Your task to perform on an android device: toggle priority inbox in the gmail app Image 0: 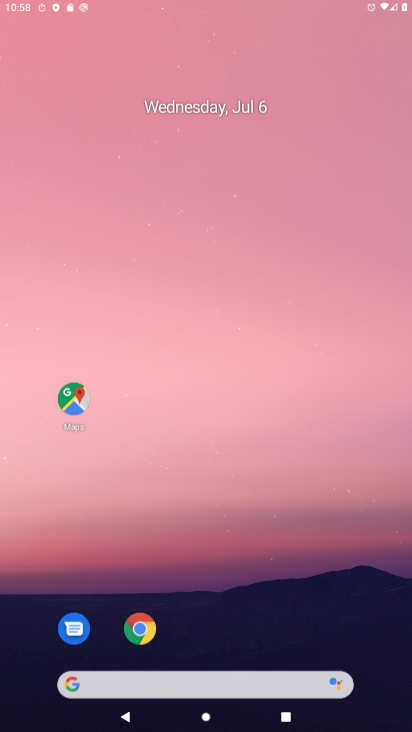
Step 0: click (169, 120)
Your task to perform on an android device: toggle priority inbox in the gmail app Image 1: 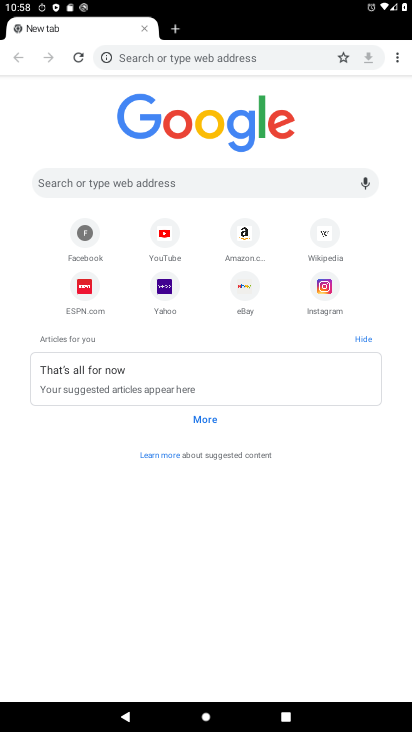
Step 1: press home button
Your task to perform on an android device: toggle priority inbox in the gmail app Image 2: 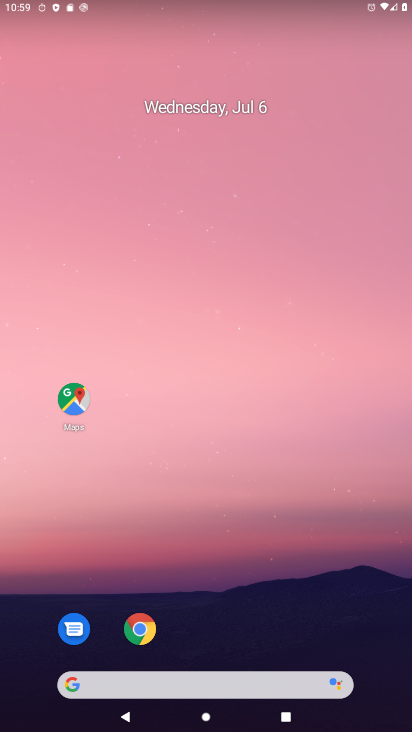
Step 2: drag from (223, 641) to (238, 148)
Your task to perform on an android device: toggle priority inbox in the gmail app Image 3: 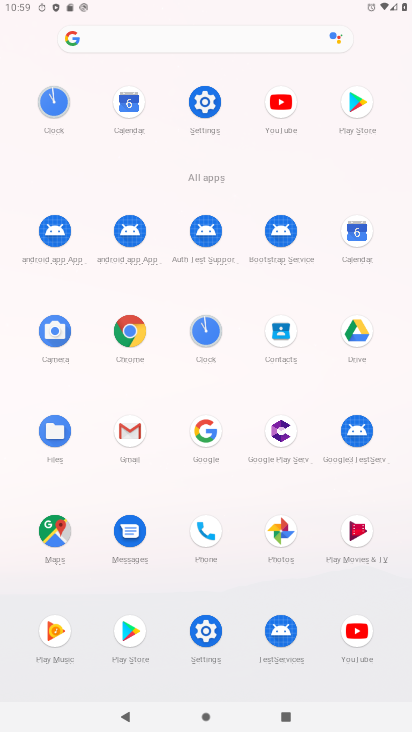
Step 3: click (139, 443)
Your task to perform on an android device: toggle priority inbox in the gmail app Image 4: 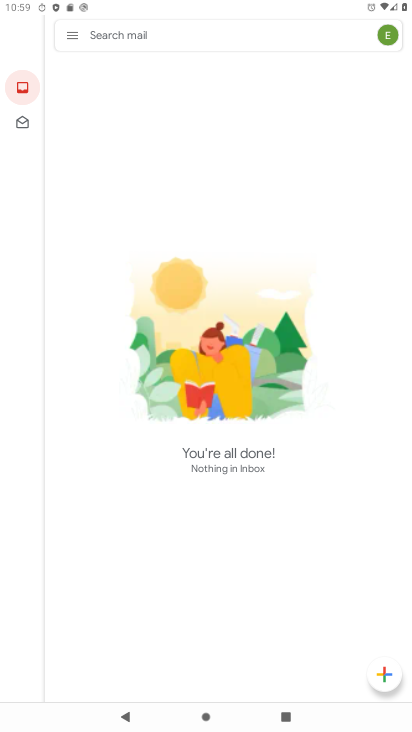
Step 4: click (76, 34)
Your task to perform on an android device: toggle priority inbox in the gmail app Image 5: 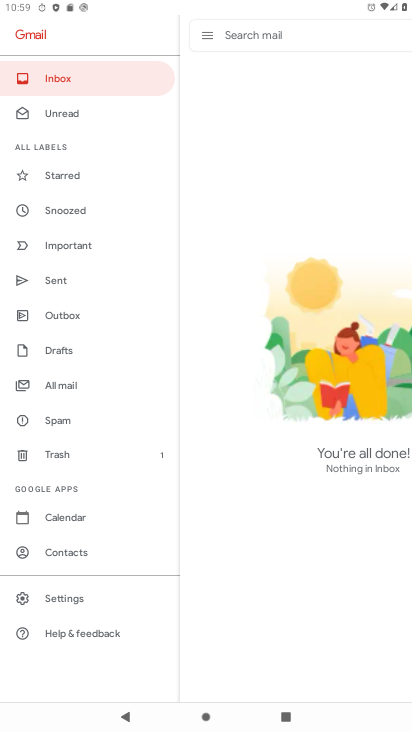
Step 5: click (68, 586)
Your task to perform on an android device: toggle priority inbox in the gmail app Image 6: 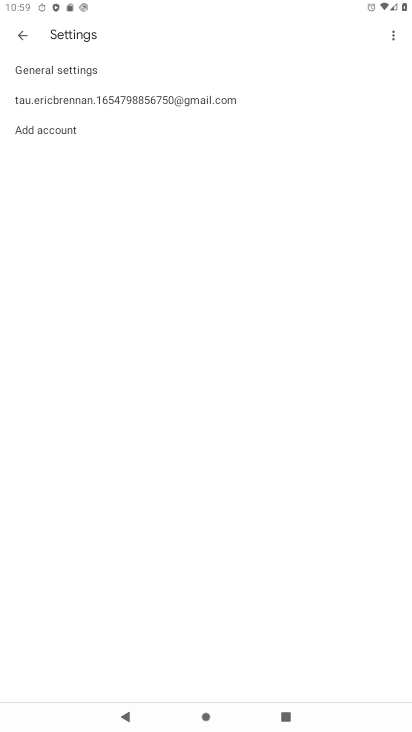
Step 6: click (99, 102)
Your task to perform on an android device: toggle priority inbox in the gmail app Image 7: 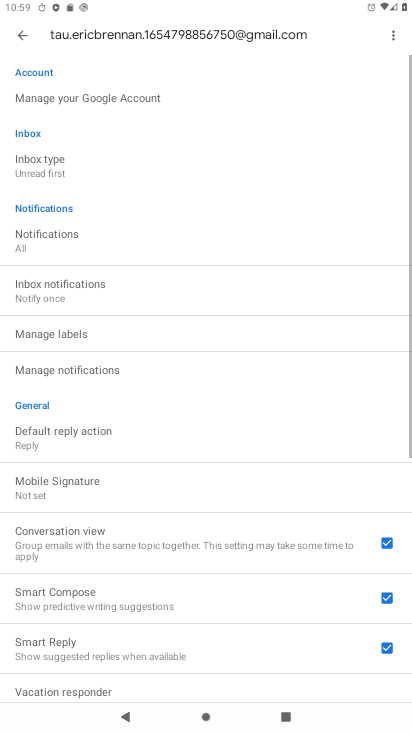
Step 7: click (48, 166)
Your task to perform on an android device: toggle priority inbox in the gmail app Image 8: 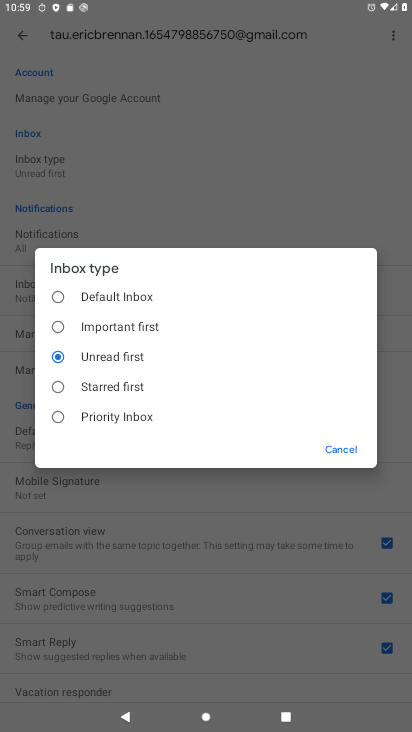
Step 8: click (57, 416)
Your task to perform on an android device: toggle priority inbox in the gmail app Image 9: 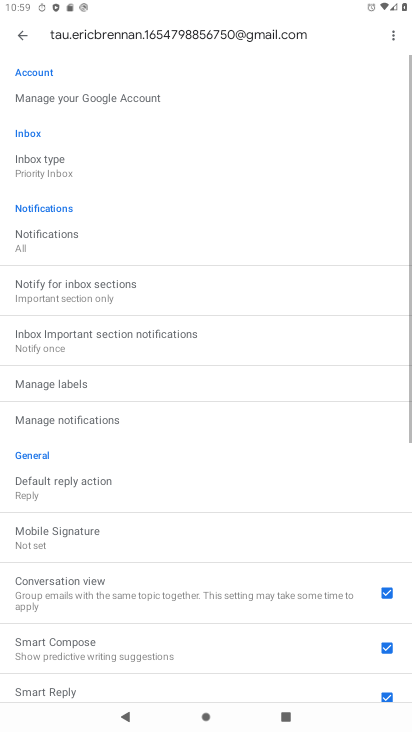
Step 9: task complete